Your task to perform on an android device: turn off smart reply in the gmail app Image 0: 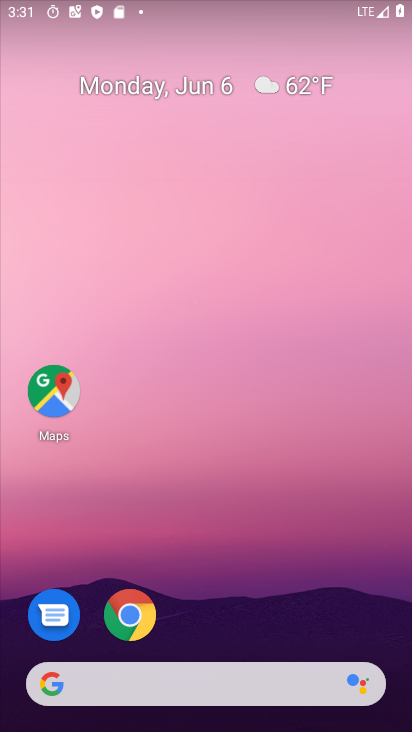
Step 0: drag from (292, 704) to (233, 67)
Your task to perform on an android device: turn off smart reply in the gmail app Image 1: 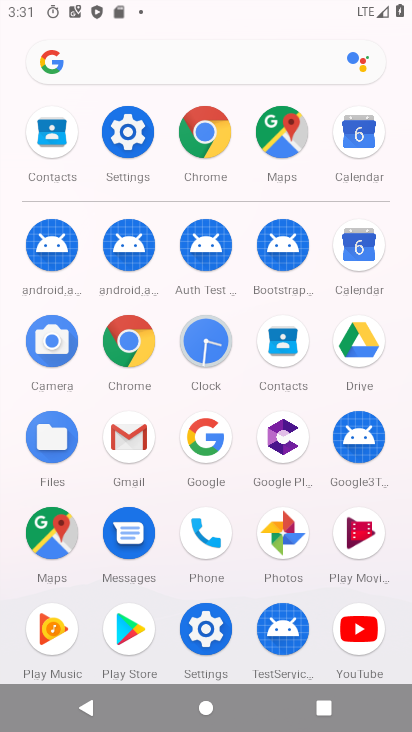
Step 1: click (134, 431)
Your task to perform on an android device: turn off smart reply in the gmail app Image 2: 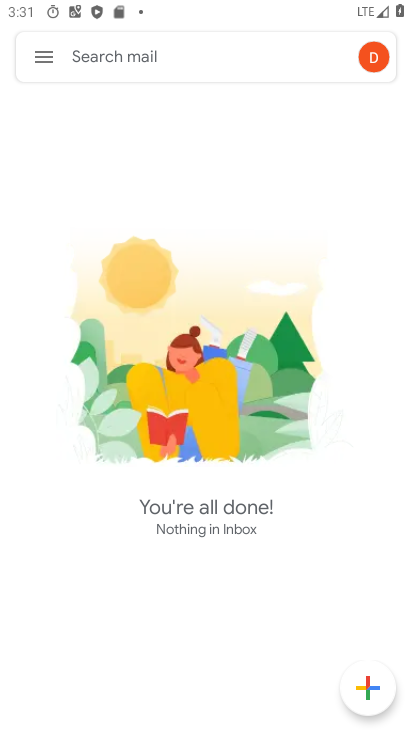
Step 2: click (45, 59)
Your task to perform on an android device: turn off smart reply in the gmail app Image 3: 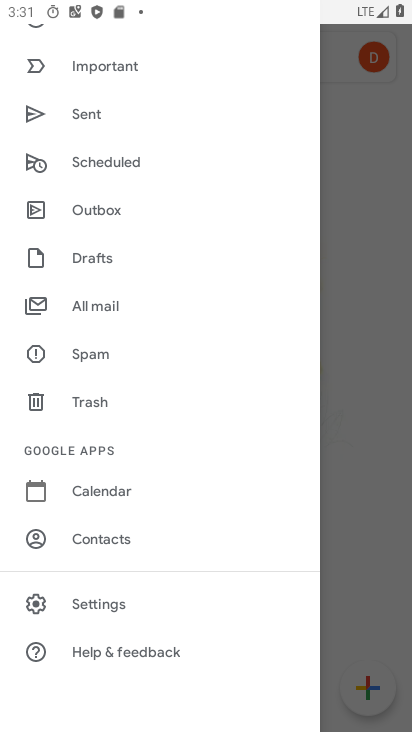
Step 3: click (87, 602)
Your task to perform on an android device: turn off smart reply in the gmail app Image 4: 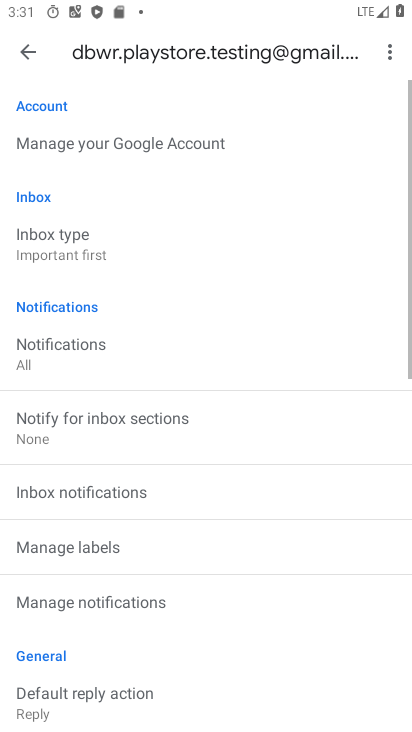
Step 4: task complete